Your task to perform on an android device: Open battery settings Image 0: 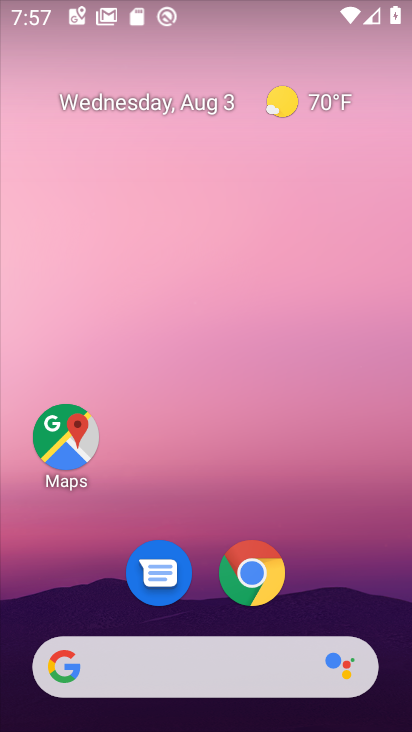
Step 0: drag from (323, 583) to (333, 23)
Your task to perform on an android device: Open battery settings Image 1: 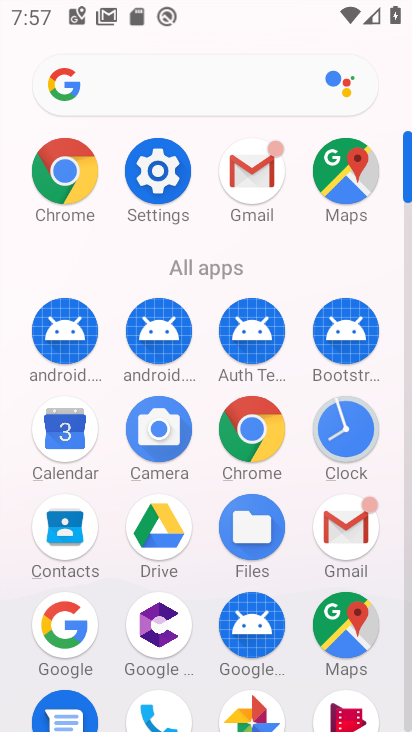
Step 1: click (151, 177)
Your task to perform on an android device: Open battery settings Image 2: 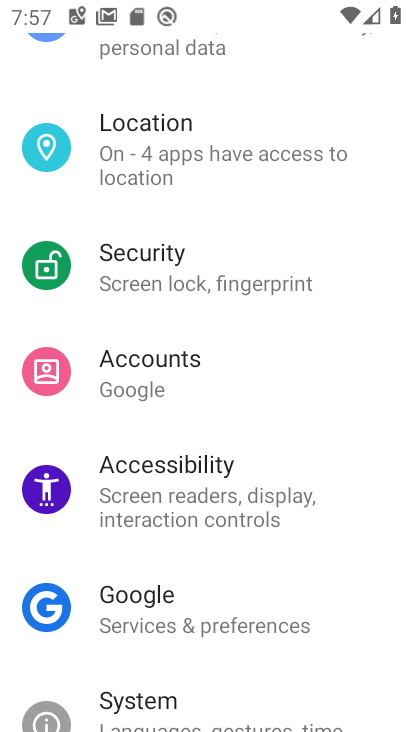
Step 2: drag from (373, 238) to (403, 589)
Your task to perform on an android device: Open battery settings Image 3: 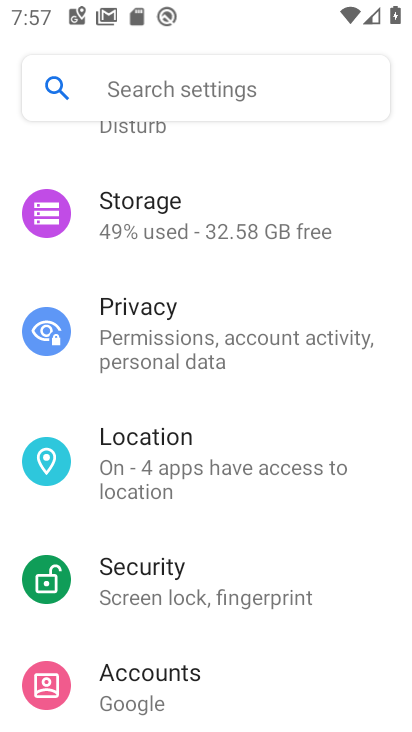
Step 3: drag from (365, 225) to (381, 584)
Your task to perform on an android device: Open battery settings Image 4: 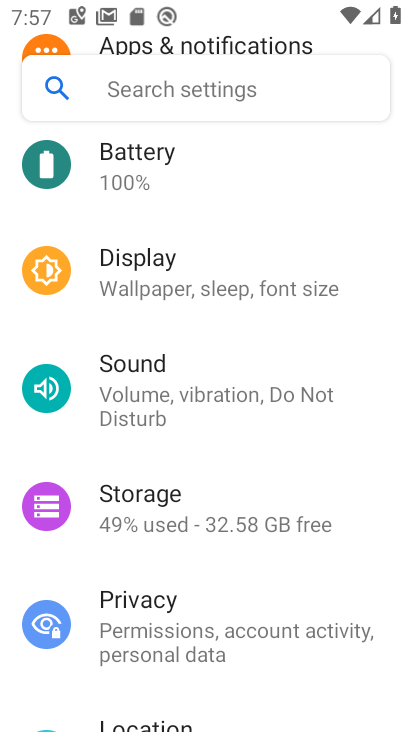
Step 4: click (114, 157)
Your task to perform on an android device: Open battery settings Image 5: 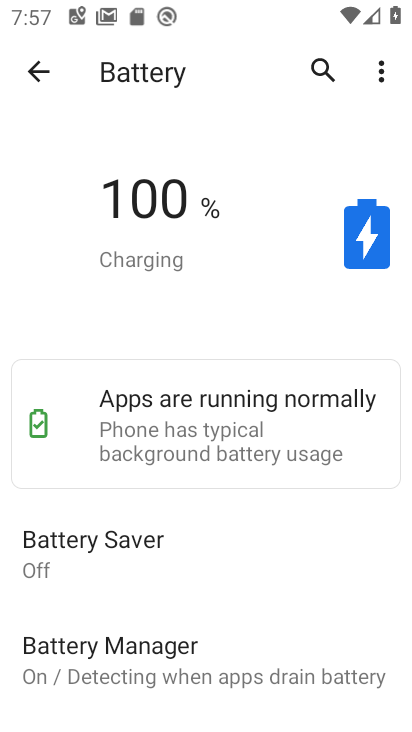
Step 5: task complete